Your task to perform on an android device: remove spam from my inbox in the gmail app Image 0: 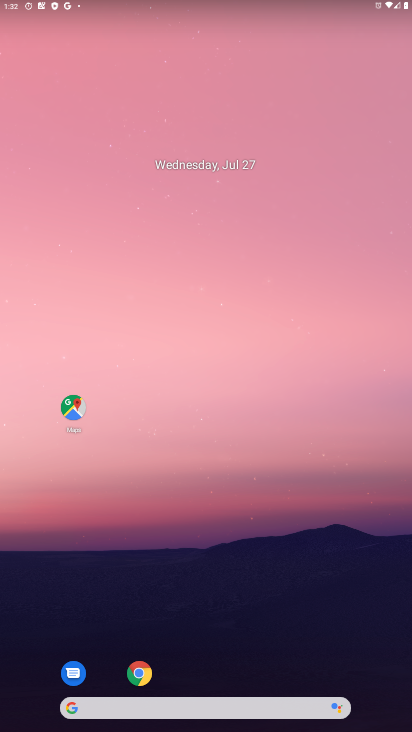
Step 0: drag from (243, 679) to (270, 63)
Your task to perform on an android device: remove spam from my inbox in the gmail app Image 1: 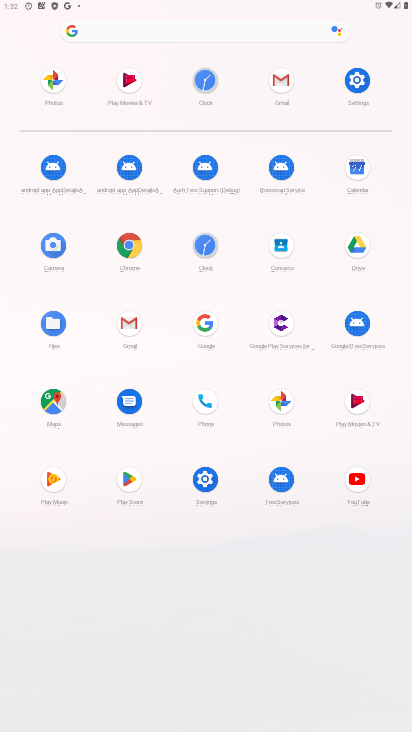
Step 1: click (284, 96)
Your task to perform on an android device: remove spam from my inbox in the gmail app Image 2: 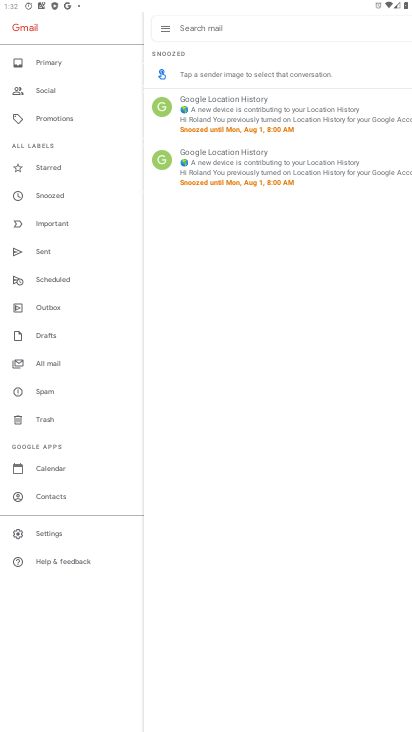
Step 2: click (39, 397)
Your task to perform on an android device: remove spam from my inbox in the gmail app Image 3: 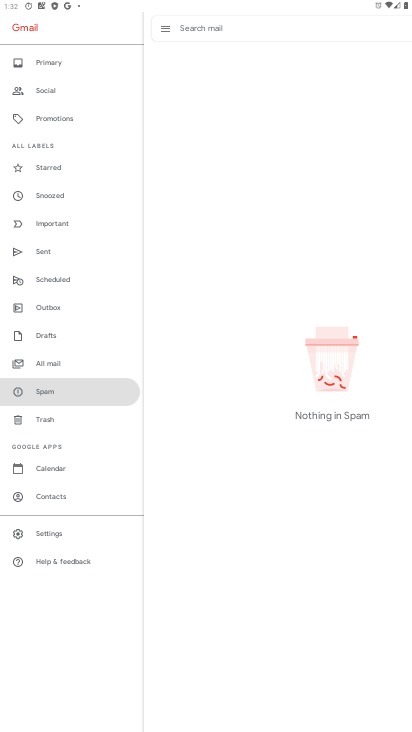
Step 3: task complete